Your task to perform on an android device: Open settings Image 0: 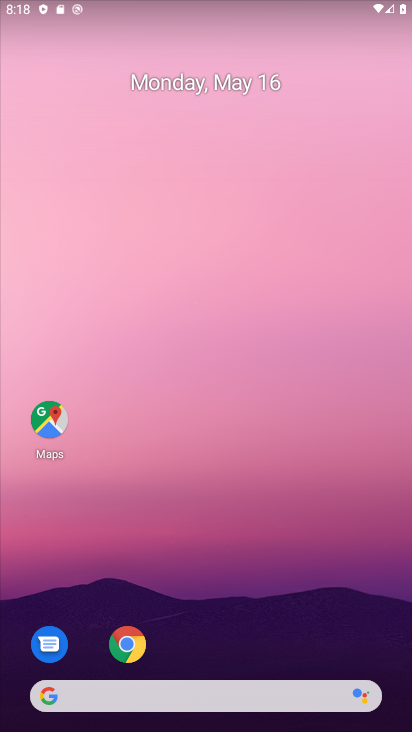
Step 0: drag from (247, 620) to (293, 70)
Your task to perform on an android device: Open settings Image 1: 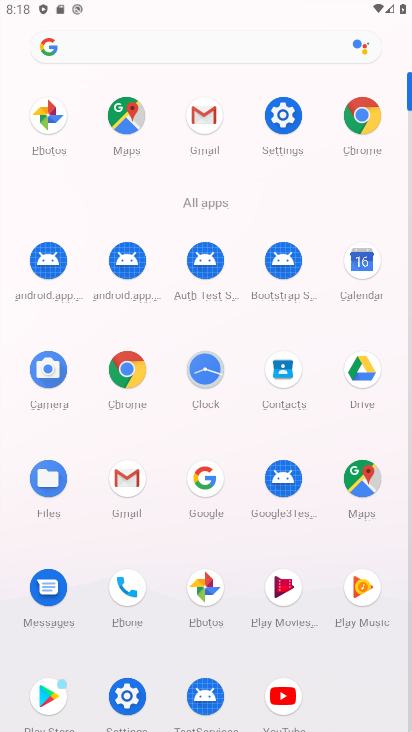
Step 1: click (277, 122)
Your task to perform on an android device: Open settings Image 2: 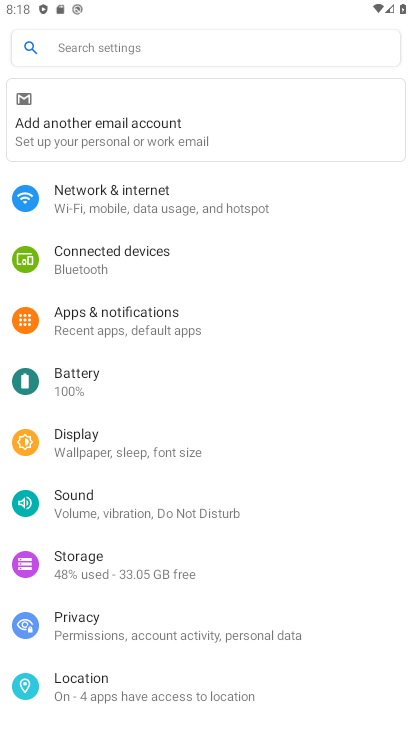
Step 2: task complete